Your task to perform on an android device: Go to wifi settings Image 0: 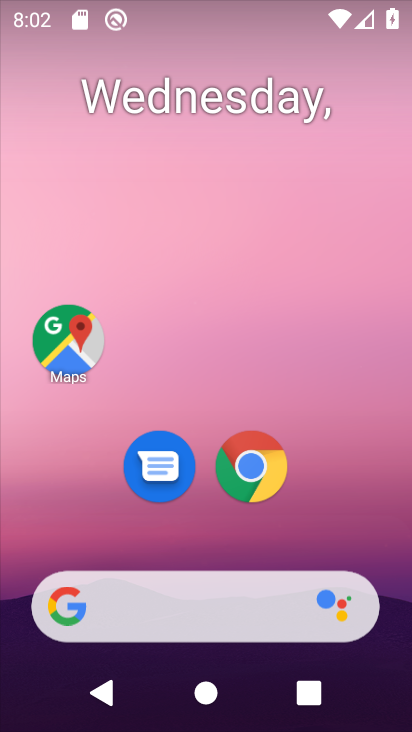
Step 0: drag from (210, 528) to (275, 78)
Your task to perform on an android device: Go to wifi settings Image 1: 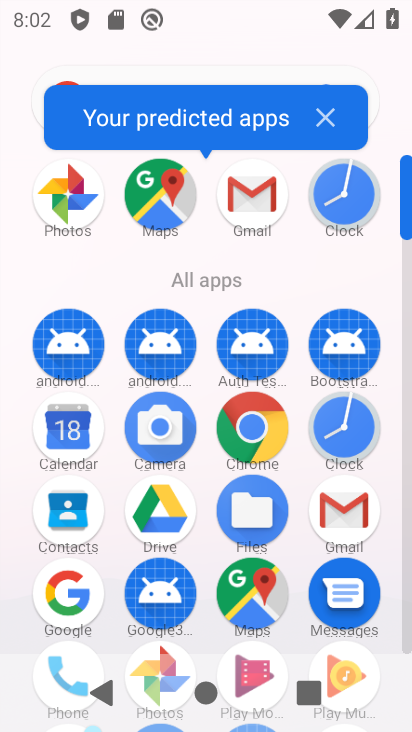
Step 1: drag from (216, 570) to (241, 261)
Your task to perform on an android device: Go to wifi settings Image 2: 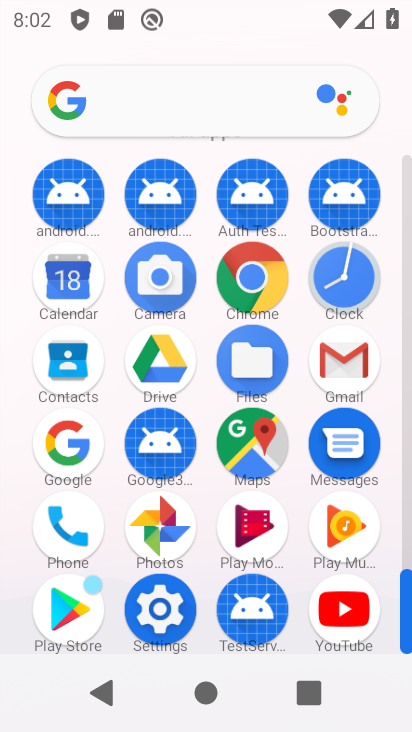
Step 2: click (159, 604)
Your task to perform on an android device: Go to wifi settings Image 3: 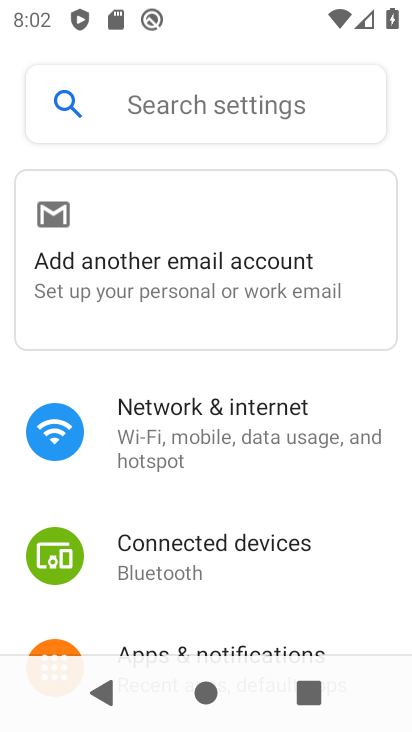
Step 3: click (185, 421)
Your task to perform on an android device: Go to wifi settings Image 4: 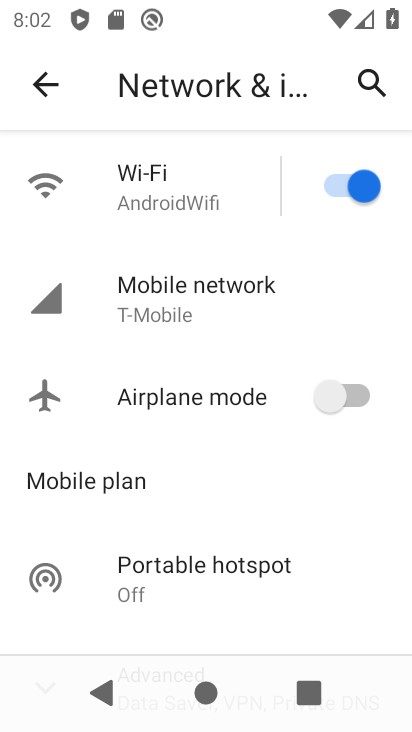
Step 4: click (143, 167)
Your task to perform on an android device: Go to wifi settings Image 5: 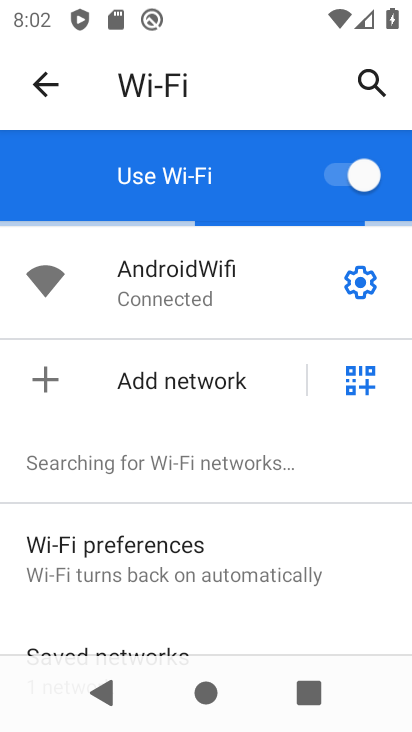
Step 5: task complete